Your task to perform on an android device: Search for sushi restaurants on Maps Image 0: 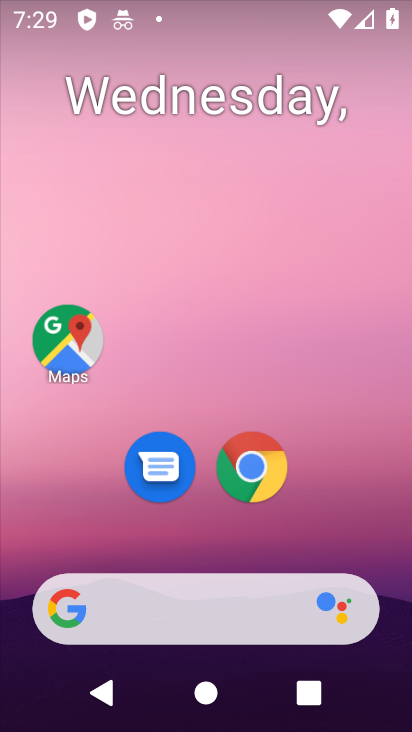
Step 0: click (61, 329)
Your task to perform on an android device: Search for sushi restaurants on Maps Image 1: 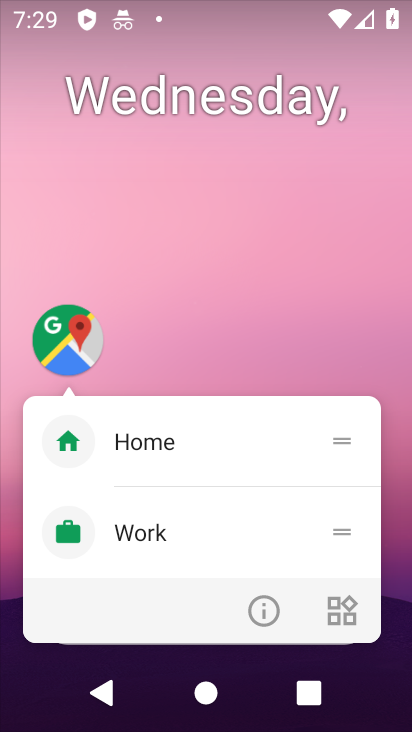
Step 1: click (61, 329)
Your task to perform on an android device: Search for sushi restaurants on Maps Image 2: 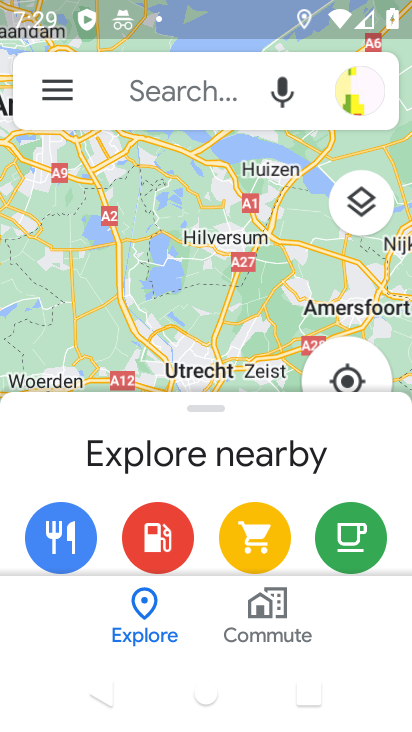
Step 2: click (188, 87)
Your task to perform on an android device: Search for sushi restaurants on Maps Image 3: 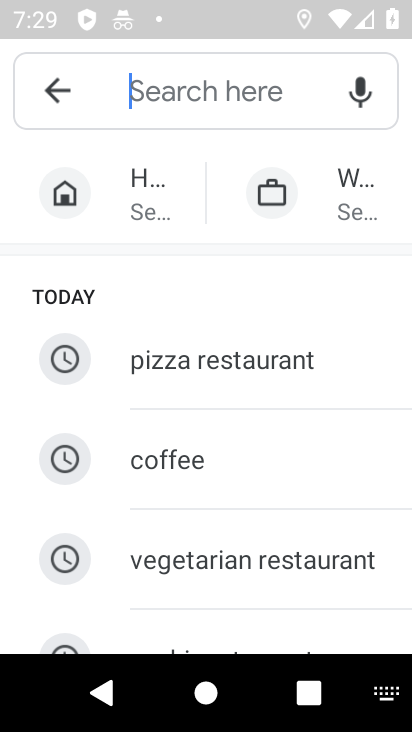
Step 3: type "sushi restaurants"
Your task to perform on an android device: Search for sushi restaurants on Maps Image 4: 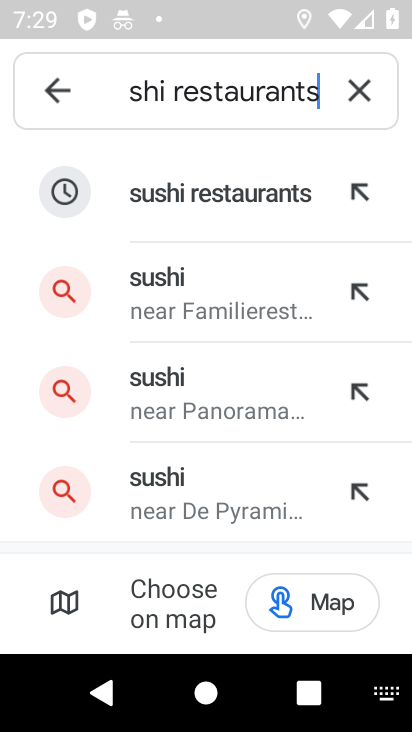
Step 4: click (189, 193)
Your task to perform on an android device: Search for sushi restaurants on Maps Image 5: 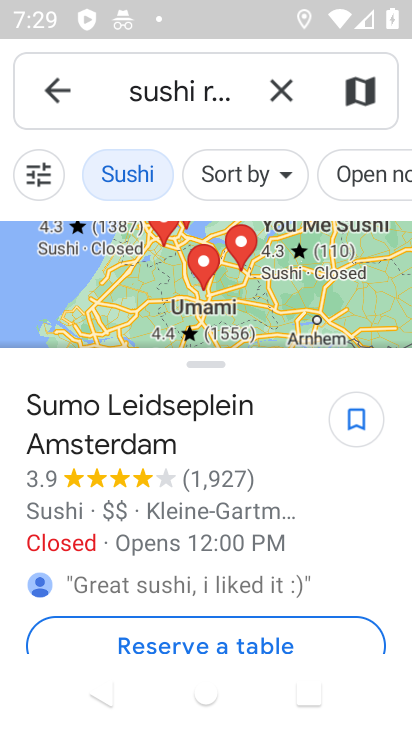
Step 5: task complete